Your task to perform on an android device: Open internet settings Image 0: 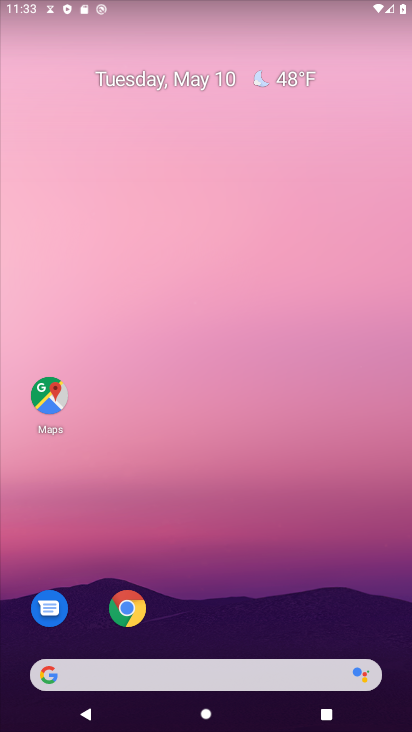
Step 0: drag from (219, 636) to (227, 555)
Your task to perform on an android device: Open internet settings Image 1: 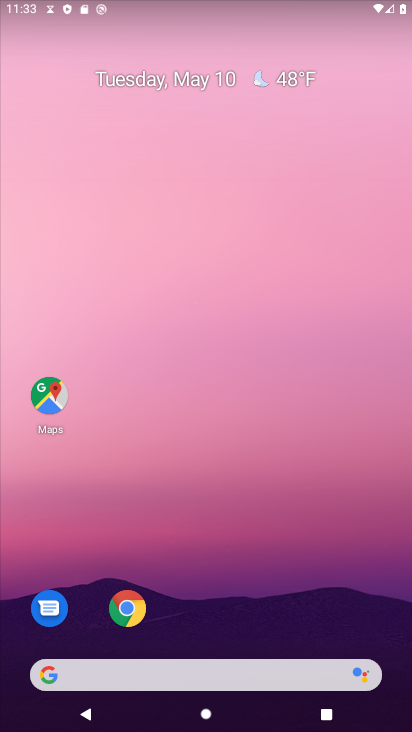
Step 1: drag from (214, 629) to (222, 209)
Your task to perform on an android device: Open internet settings Image 2: 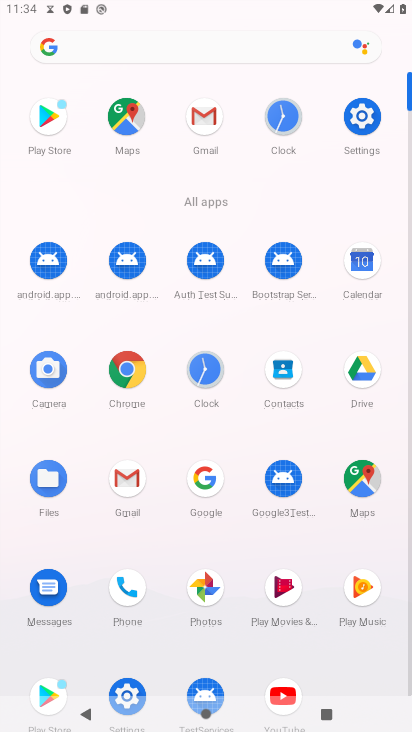
Step 2: click (350, 143)
Your task to perform on an android device: Open internet settings Image 3: 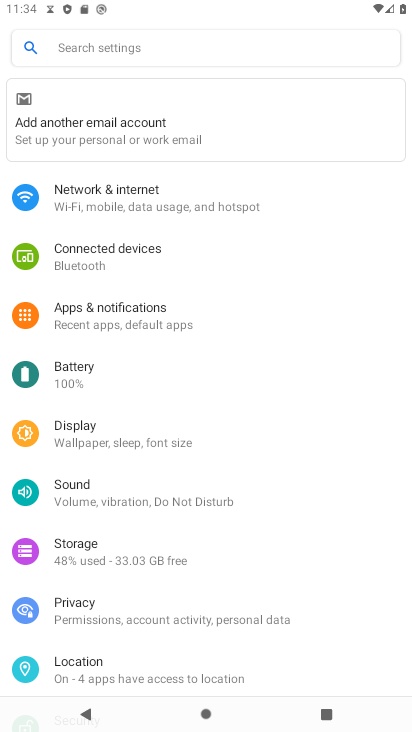
Step 3: click (264, 196)
Your task to perform on an android device: Open internet settings Image 4: 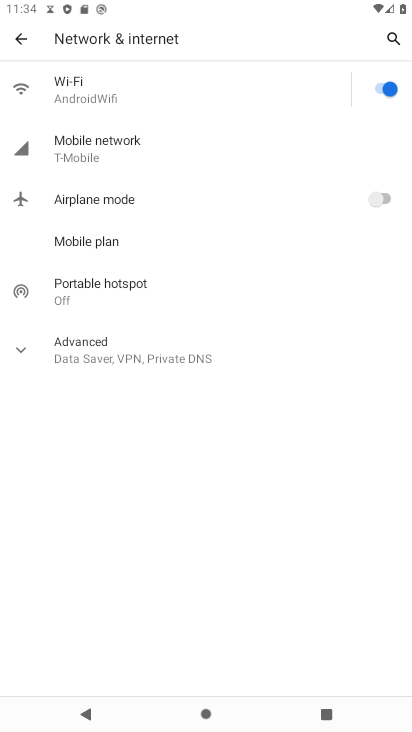
Step 4: task complete